Your task to perform on an android device: uninstall "Yahoo Mail" Image 0: 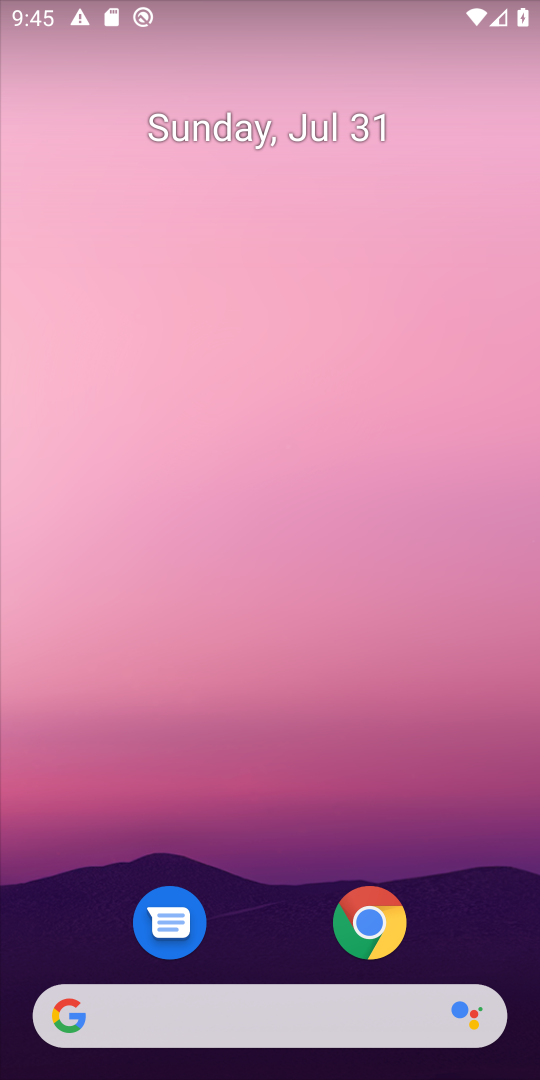
Step 0: drag from (286, 926) to (275, 79)
Your task to perform on an android device: uninstall "Yahoo Mail" Image 1: 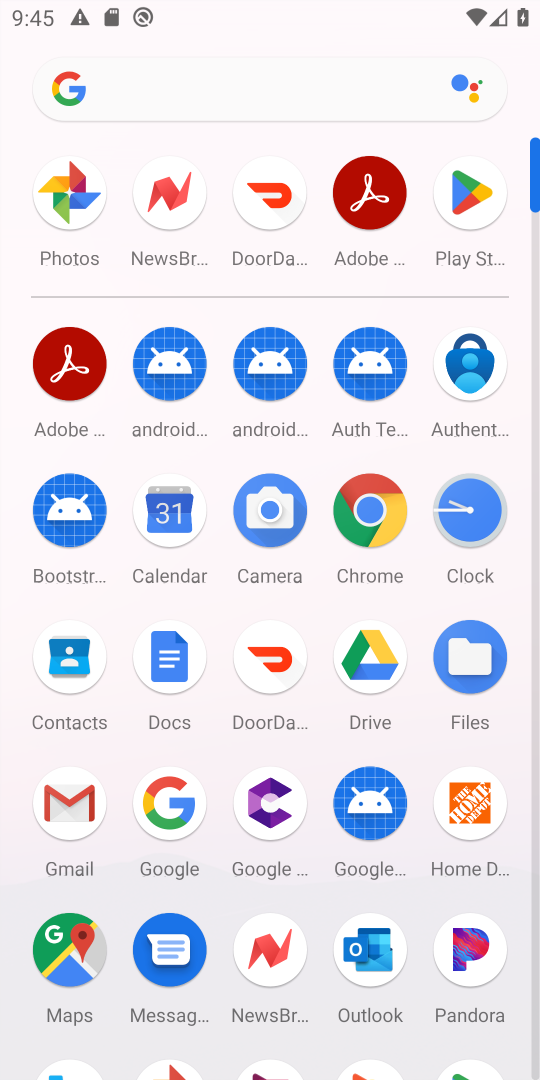
Step 1: click (461, 202)
Your task to perform on an android device: uninstall "Yahoo Mail" Image 2: 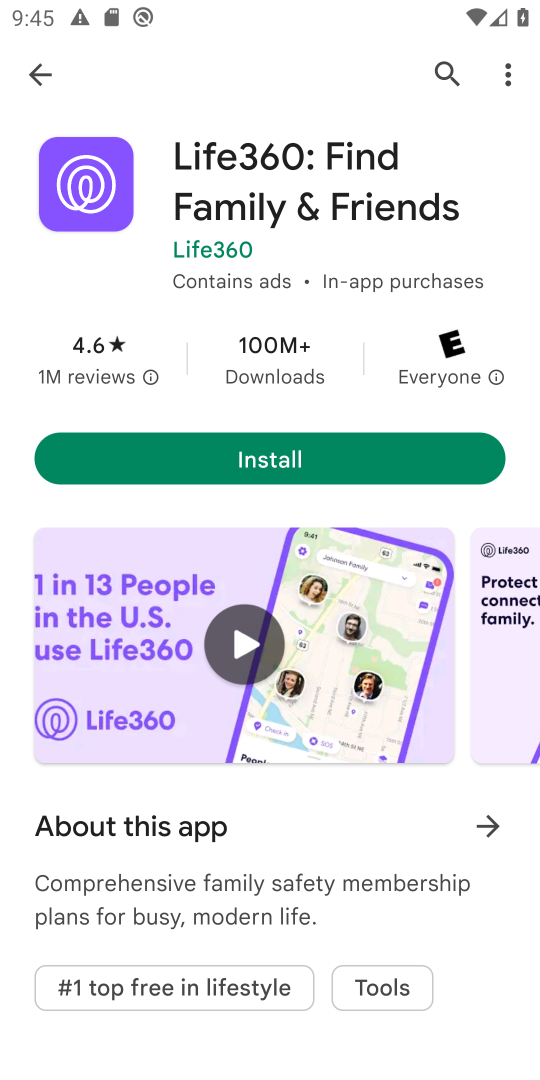
Step 2: click (444, 59)
Your task to perform on an android device: uninstall "Yahoo Mail" Image 3: 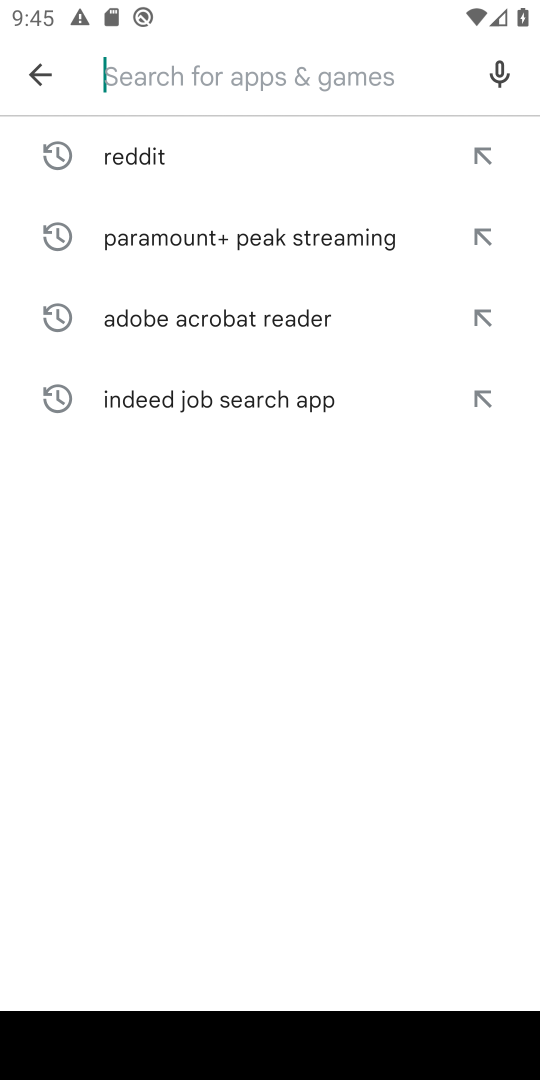
Step 3: type "Yahoo Mail"
Your task to perform on an android device: uninstall "Yahoo Mail" Image 4: 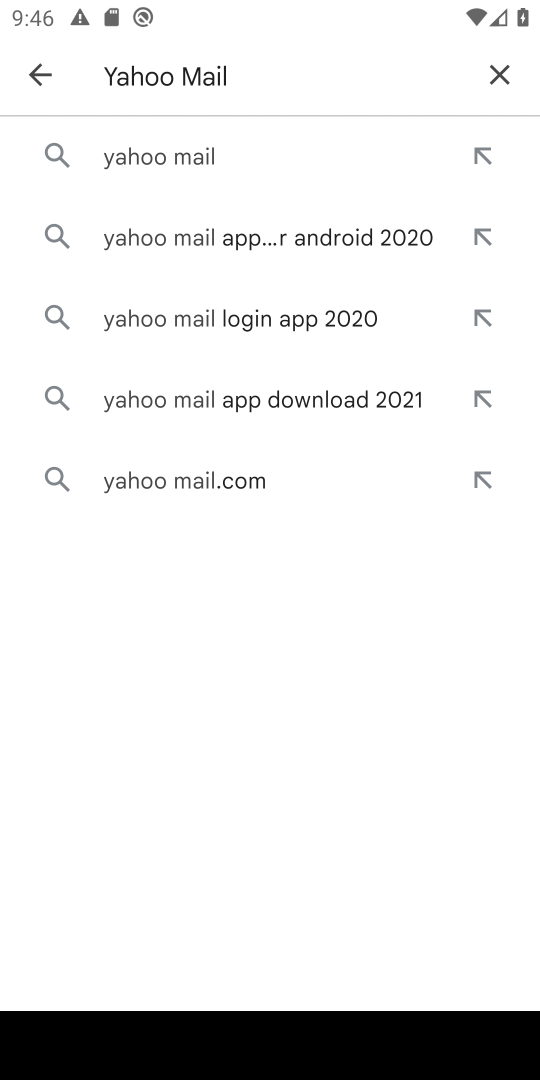
Step 4: click (164, 147)
Your task to perform on an android device: uninstall "Yahoo Mail" Image 5: 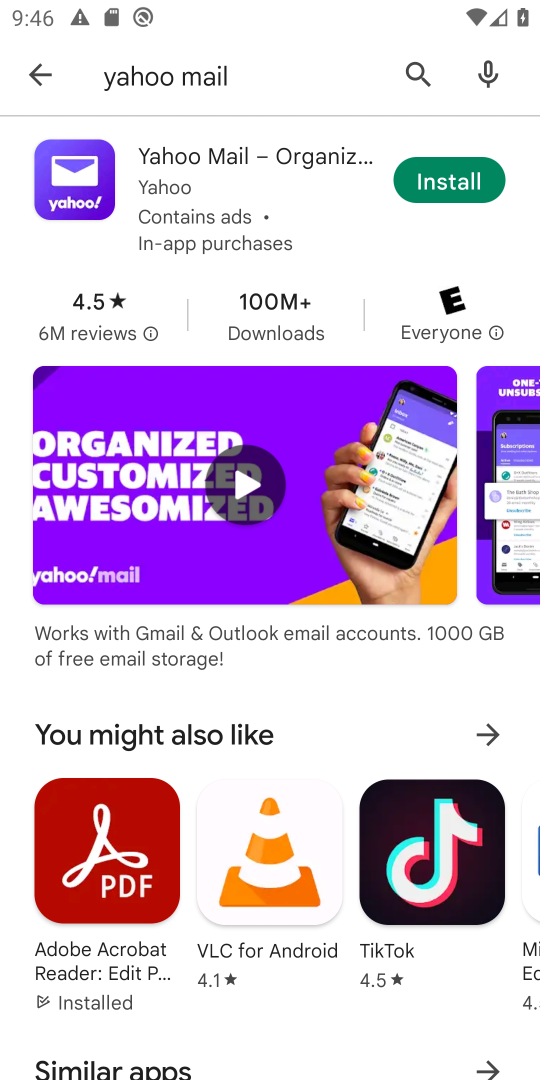
Step 5: click (233, 154)
Your task to perform on an android device: uninstall "Yahoo Mail" Image 6: 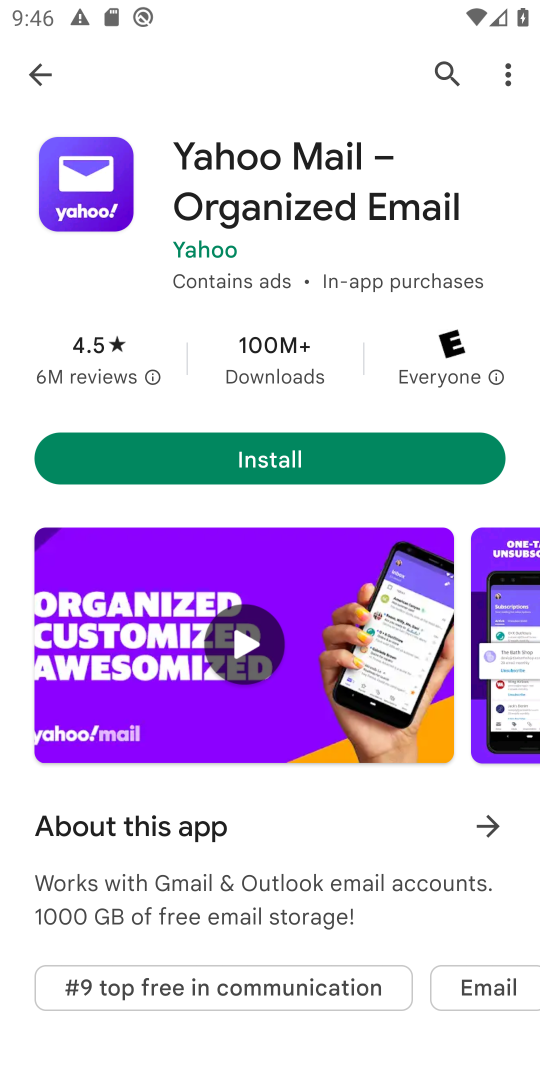
Step 6: task complete